Your task to perform on an android device: open wifi settings Image 0: 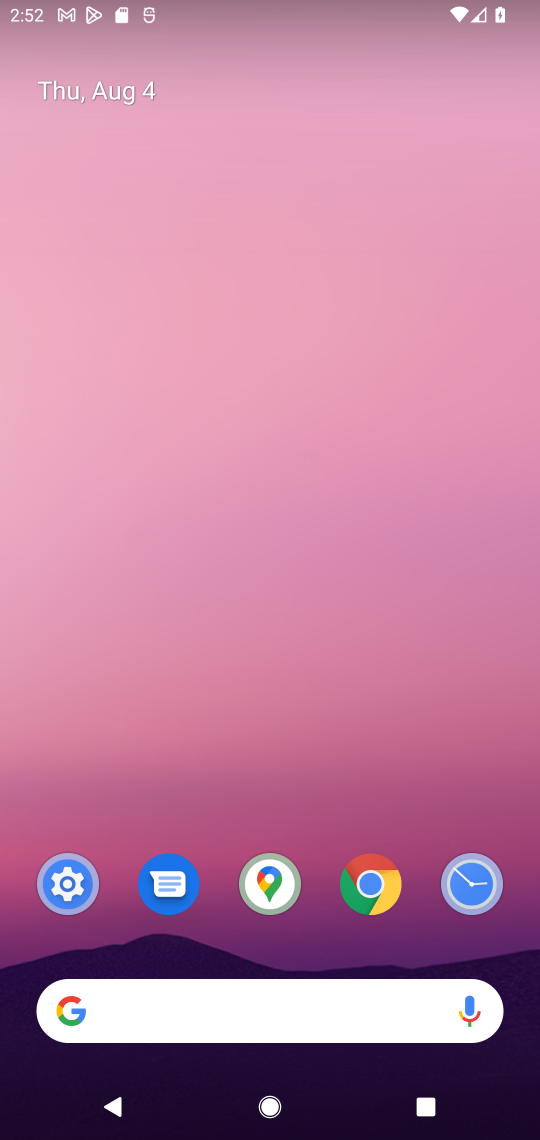
Step 0: drag from (308, 957) to (390, 104)
Your task to perform on an android device: open wifi settings Image 1: 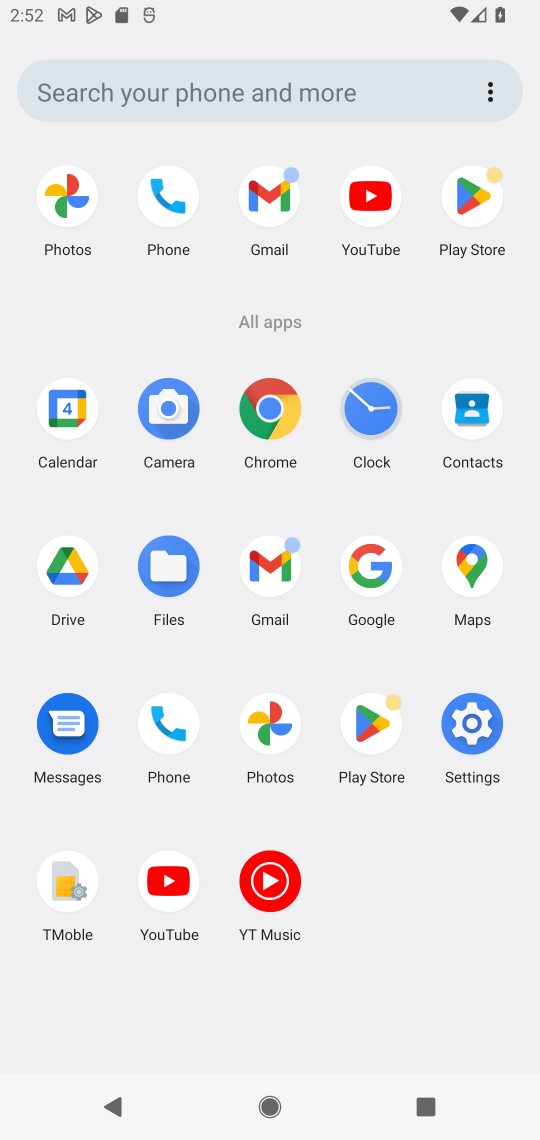
Step 1: click (489, 710)
Your task to perform on an android device: open wifi settings Image 2: 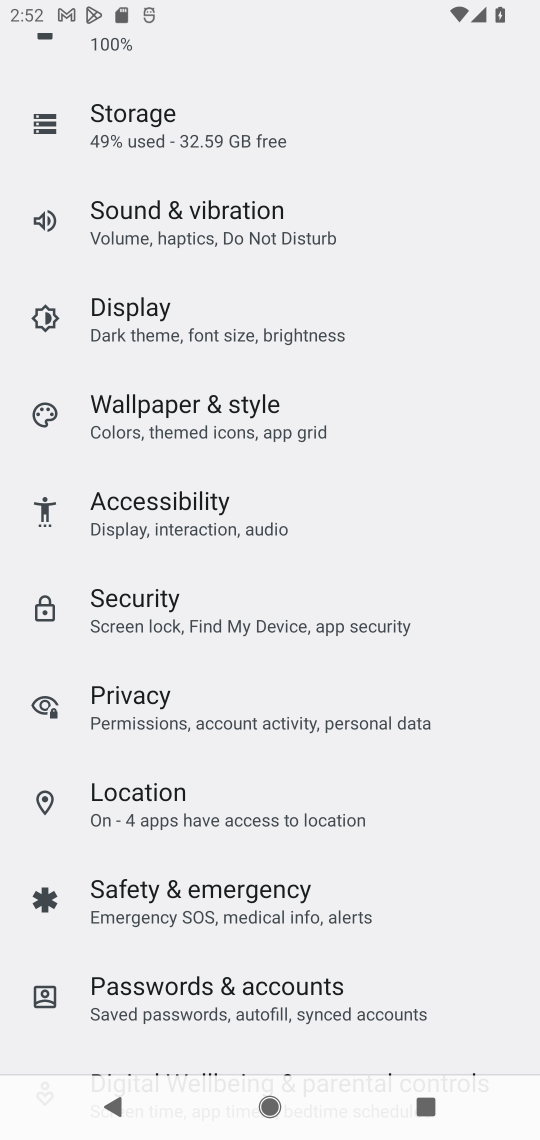
Step 2: drag from (282, 282) to (290, 825)
Your task to perform on an android device: open wifi settings Image 3: 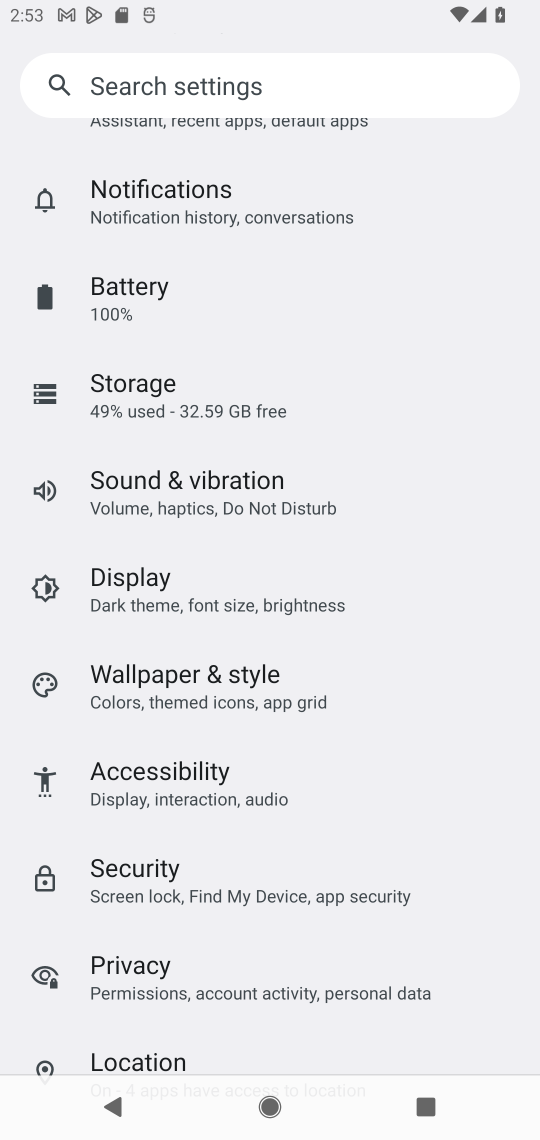
Step 3: drag from (224, 268) to (154, 1062)
Your task to perform on an android device: open wifi settings Image 4: 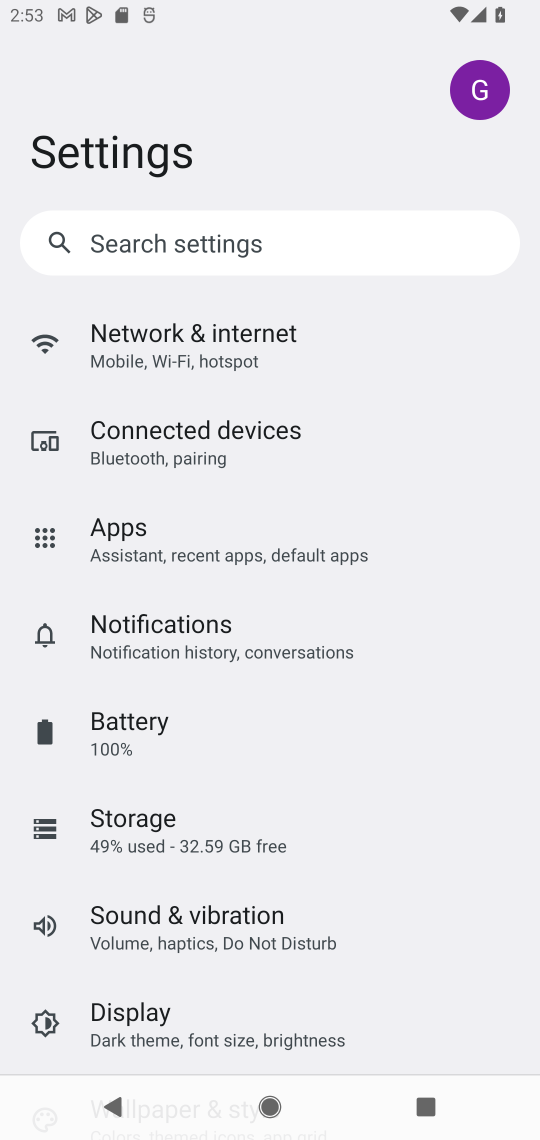
Step 4: click (81, 355)
Your task to perform on an android device: open wifi settings Image 5: 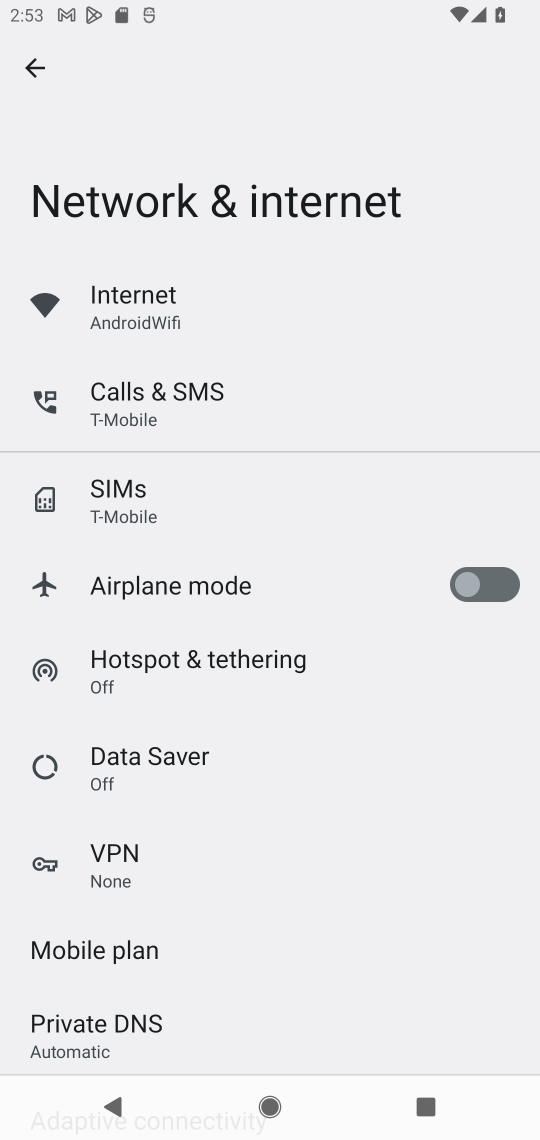
Step 5: task complete